Your task to perform on an android device: Open calendar and show me the third week of next month Image 0: 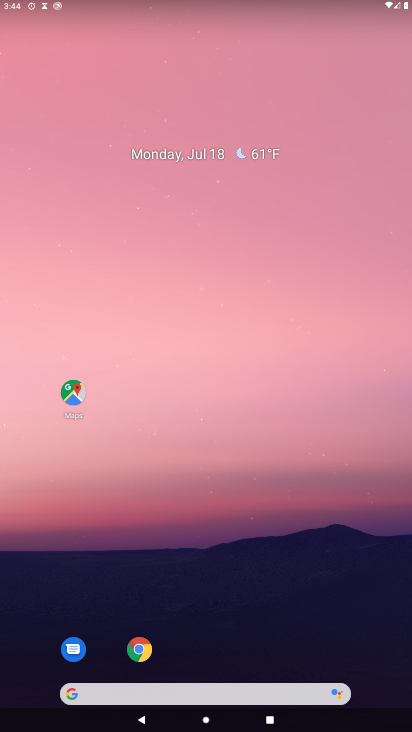
Step 0: drag from (40, 679) to (266, 270)
Your task to perform on an android device: Open calendar and show me the third week of next month Image 1: 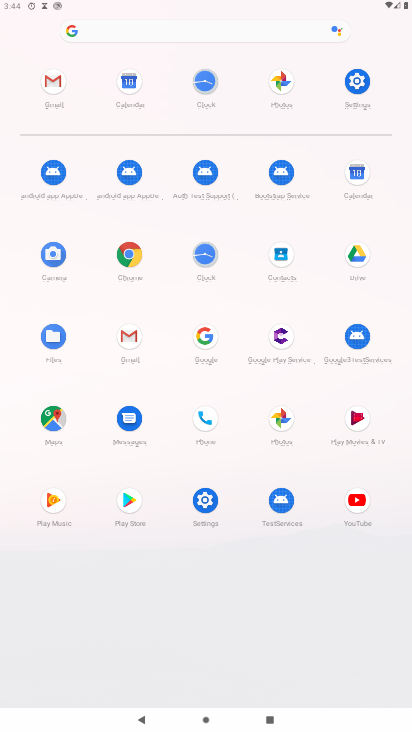
Step 1: click (368, 172)
Your task to perform on an android device: Open calendar and show me the third week of next month Image 2: 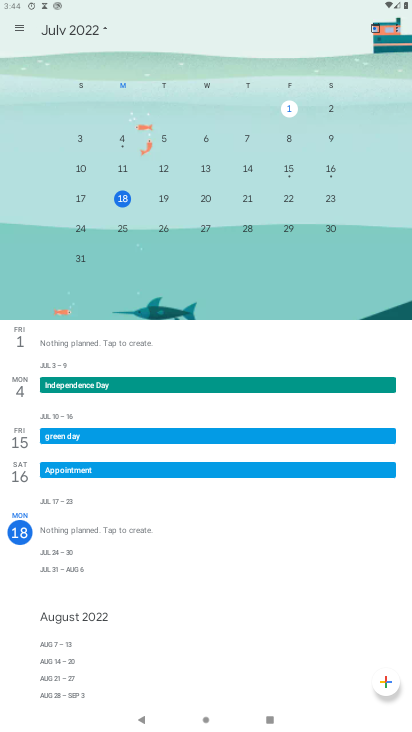
Step 2: drag from (50, 149) to (164, 139)
Your task to perform on an android device: Open calendar and show me the third week of next month Image 3: 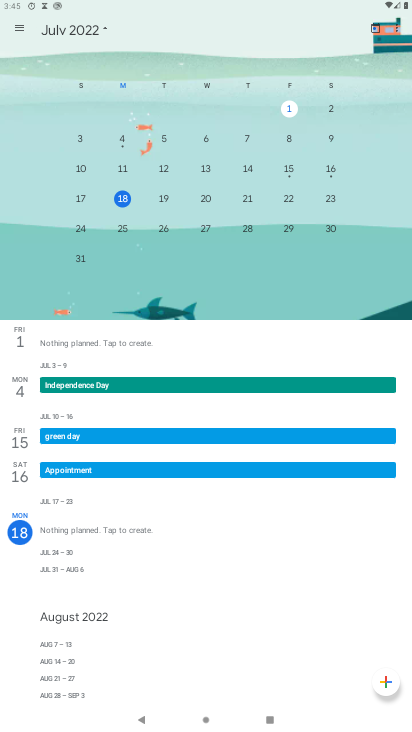
Step 3: drag from (370, 158) to (10, 98)
Your task to perform on an android device: Open calendar and show me the third week of next month Image 4: 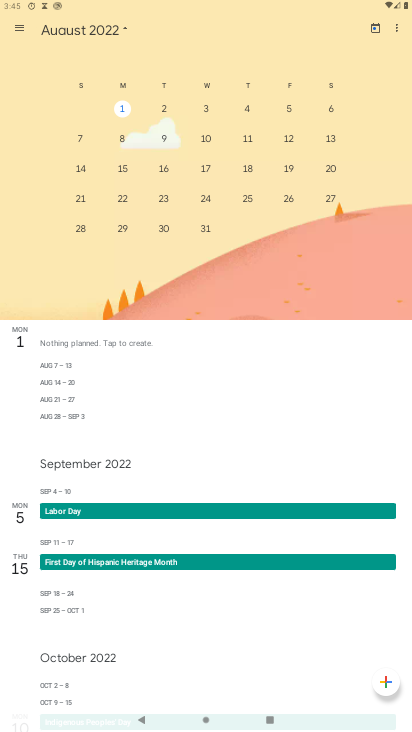
Step 4: click (120, 173)
Your task to perform on an android device: Open calendar and show me the third week of next month Image 5: 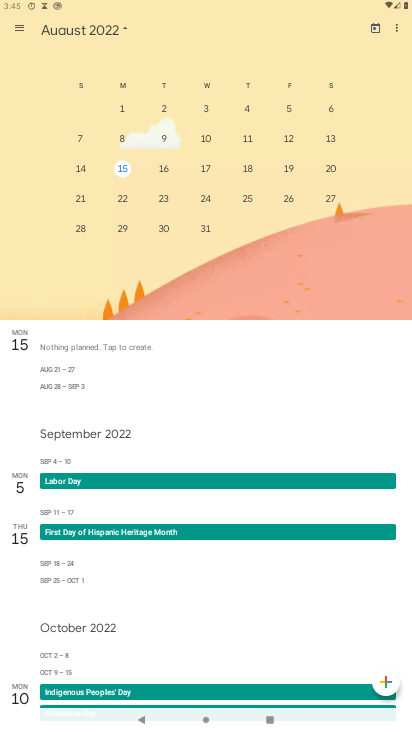
Step 5: task complete